Your task to perform on an android device: Open Chrome and go to settings Image 0: 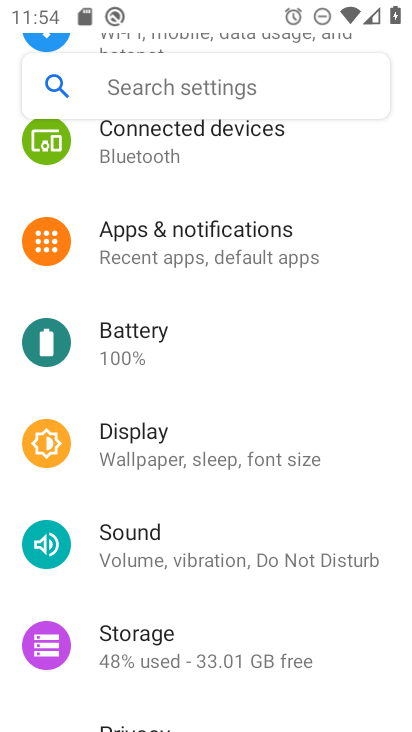
Step 0: press home button
Your task to perform on an android device: Open Chrome and go to settings Image 1: 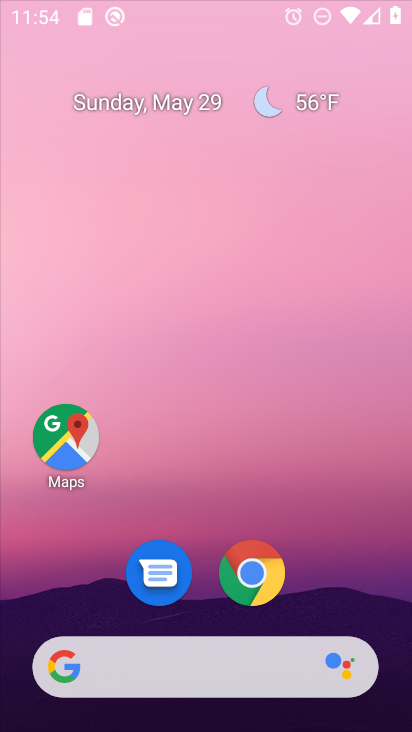
Step 1: drag from (246, 647) to (233, 45)
Your task to perform on an android device: Open Chrome and go to settings Image 2: 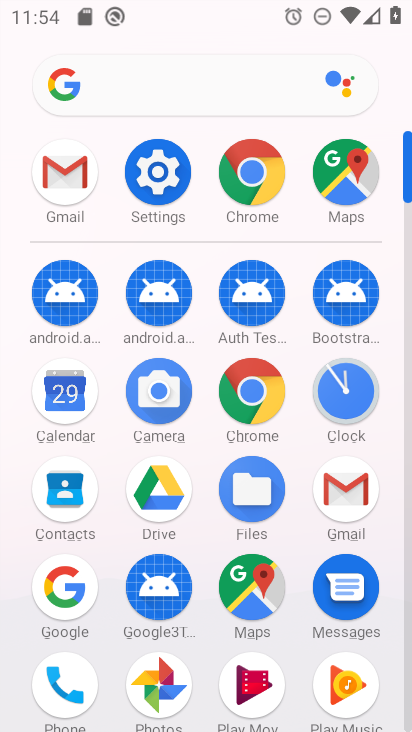
Step 2: click (228, 377)
Your task to perform on an android device: Open Chrome and go to settings Image 3: 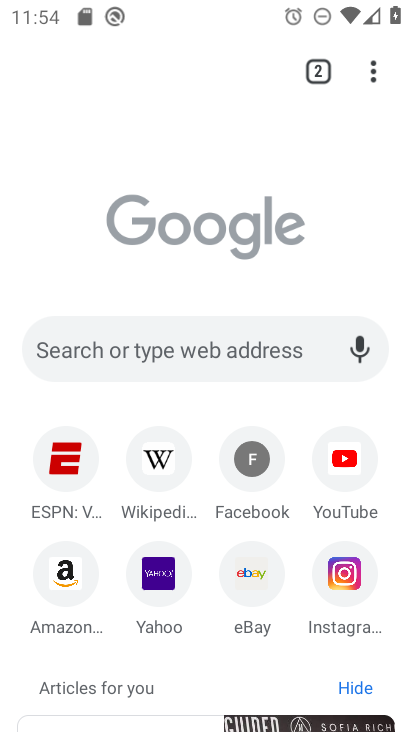
Step 3: task complete